Your task to perform on an android device: turn off smart reply in the gmail app Image 0: 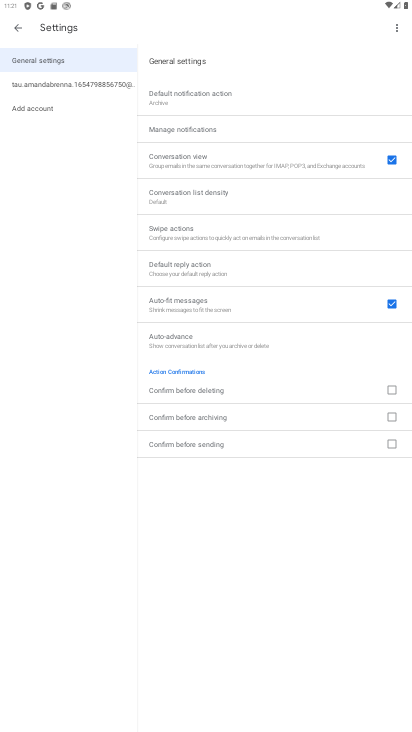
Step 0: click (104, 75)
Your task to perform on an android device: turn off smart reply in the gmail app Image 1: 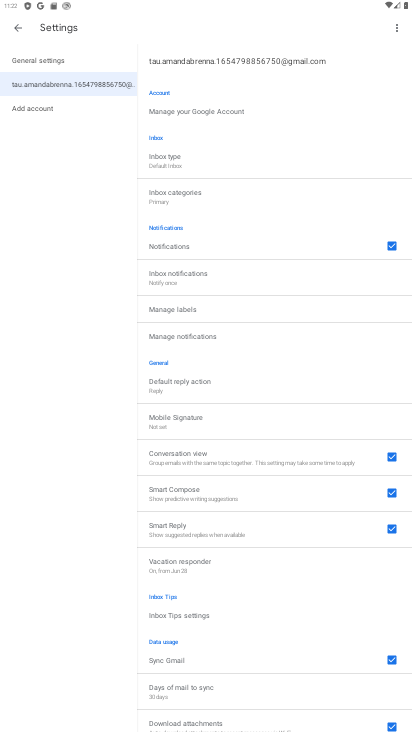
Step 1: click (397, 531)
Your task to perform on an android device: turn off smart reply in the gmail app Image 2: 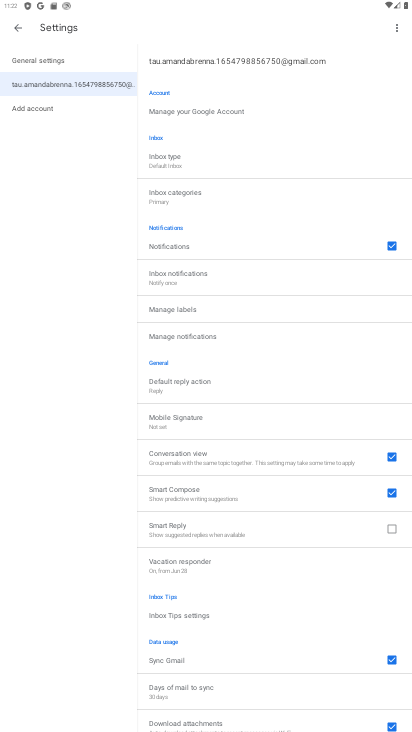
Step 2: task complete